Your task to perform on an android device: delete browsing data in the chrome app Image 0: 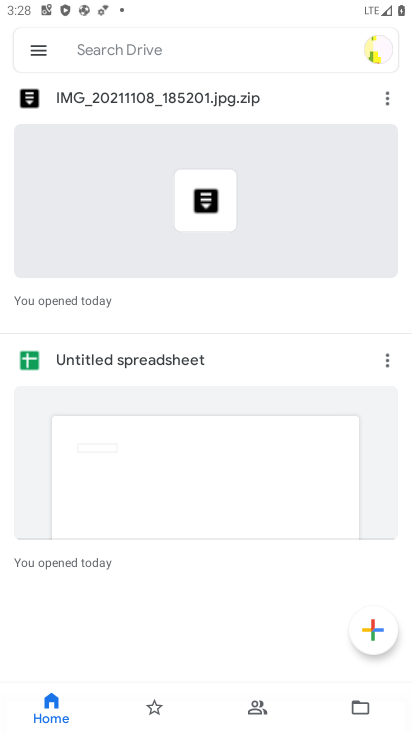
Step 0: press back button
Your task to perform on an android device: delete browsing data in the chrome app Image 1: 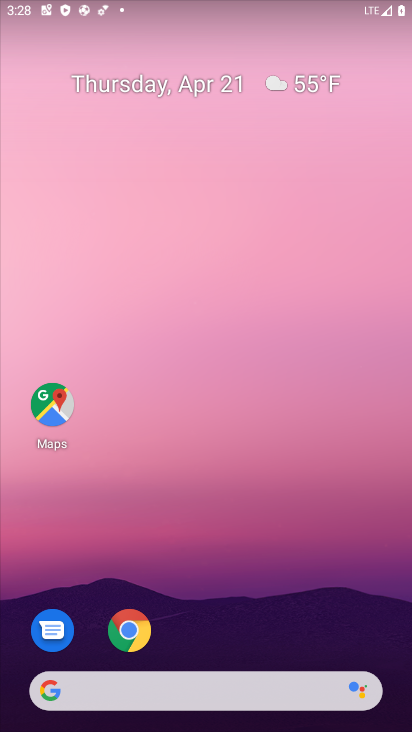
Step 1: click (129, 622)
Your task to perform on an android device: delete browsing data in the chrome app Image 2: 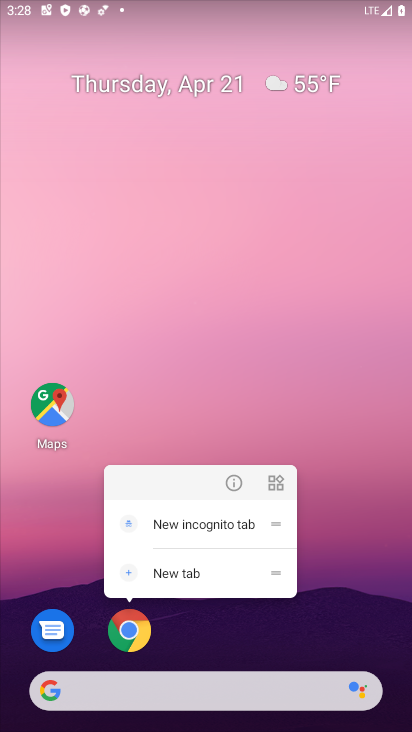
Step 2: click (133, 625)
Your task to perform on an android device: delete browsing data in the chrome app Image 3: 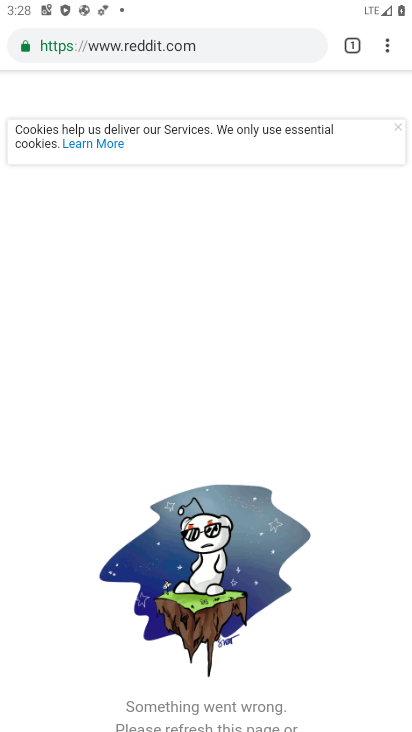
Step 3: drag from (383, 45) to (246, 258)
Your task to perform on an android device: delete browsing data in the chrome app Image 4: 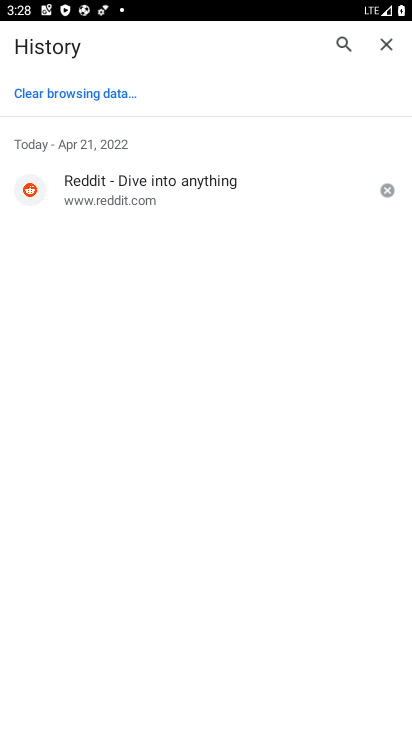
Step 4: click (91, 95)
Your task to perform on an android device: delete browsing data in the chrome app Image 5: 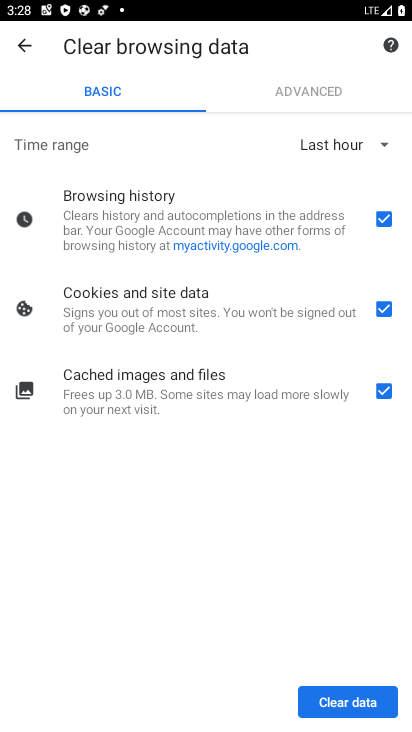
Step 5: click (372, 716)
Your task to perform on an android device: delete browsing data in the chrome app Image 6: 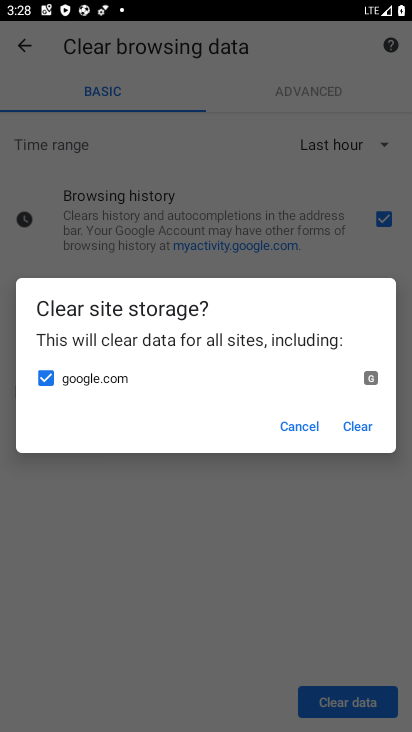
Step 6: click (359, 424)
Your task to perform on an android device: delete browsing data in the chrome app Image 7: 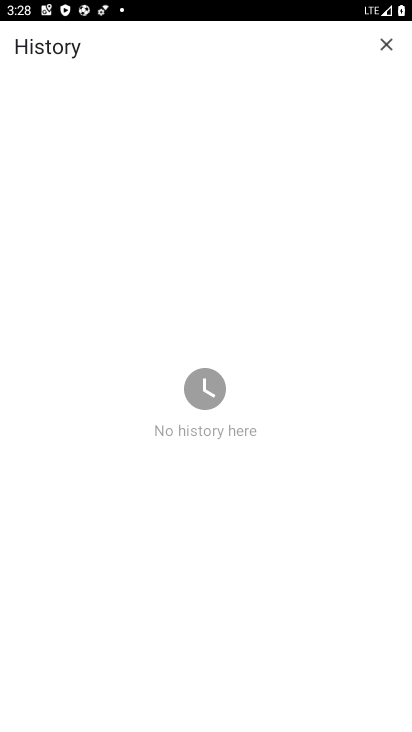
Step 7: task complete